Your task to perform on an android device: make emails show in primary in the gmail app Image 0: 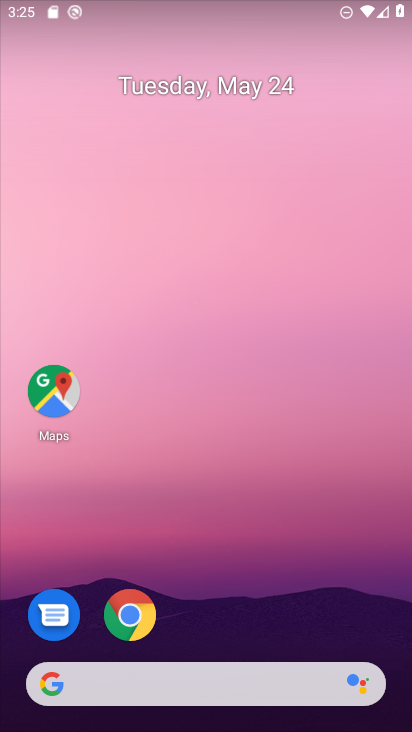
Step 0: drag from (272, 459) to (302, 104)
Your task to perform on an android device: make emails show in primary in the gmail app Image 1: 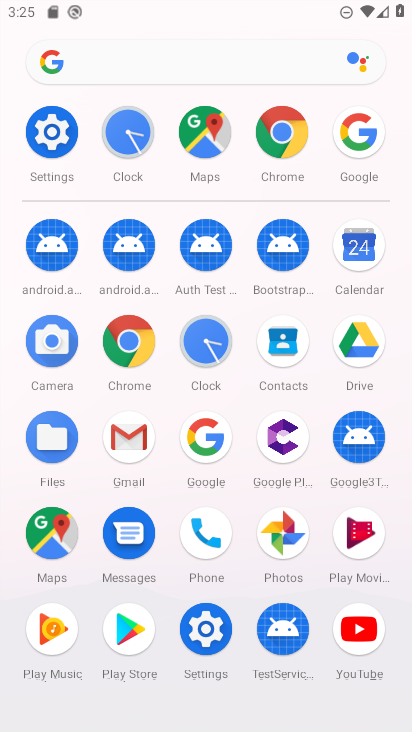
Step 1: click (141, 459)
Your task to perform on an android device: make emails show in primary in the gmail app Image 2: 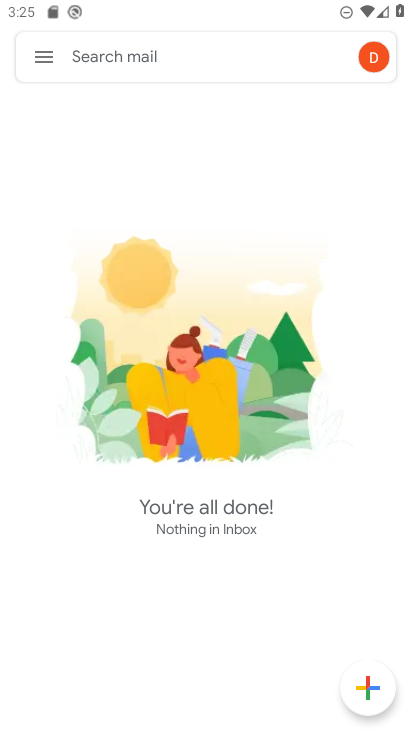
Step 2: click (45, 64)
Your task to perform on an android device: make emails show in primary in the gmail app Image 3: 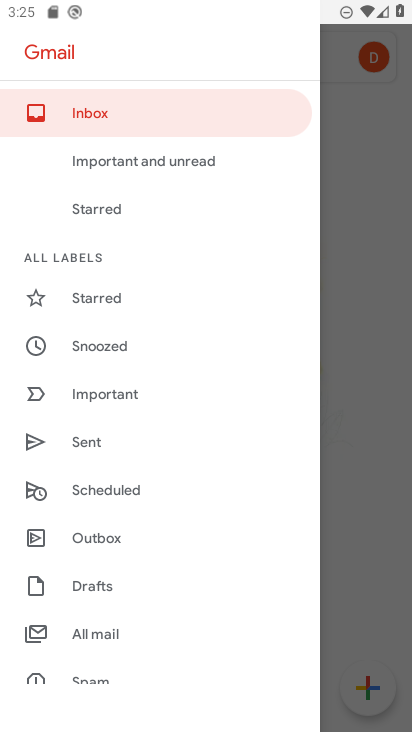
Step 3: drag from (105, 557) to (114, 365)
Your task to perform on an android device: make emails show in primary in the gmail app Image 4: 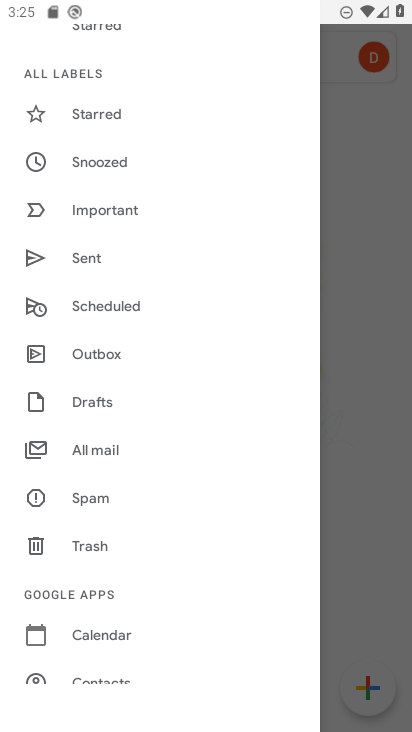
Step 4: drag from (178, 623) to (238, 370)
Your task to perform on an android device: make emails show in primary in the gmail app Image 5: 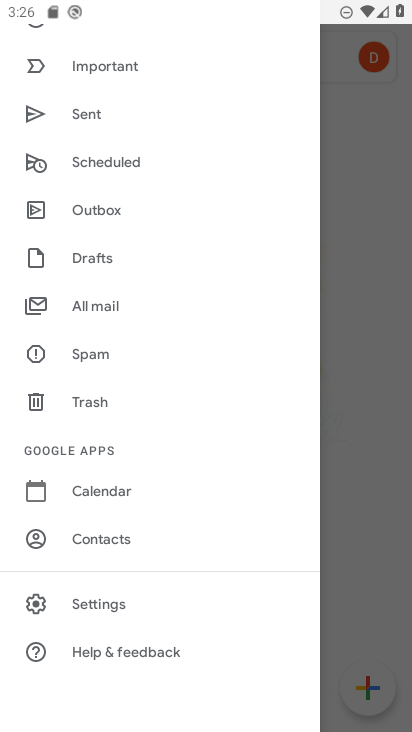
Step 5: click (149, 605)
Your task to perform on an android device: make emails show in primary in the gmail app Image 6: 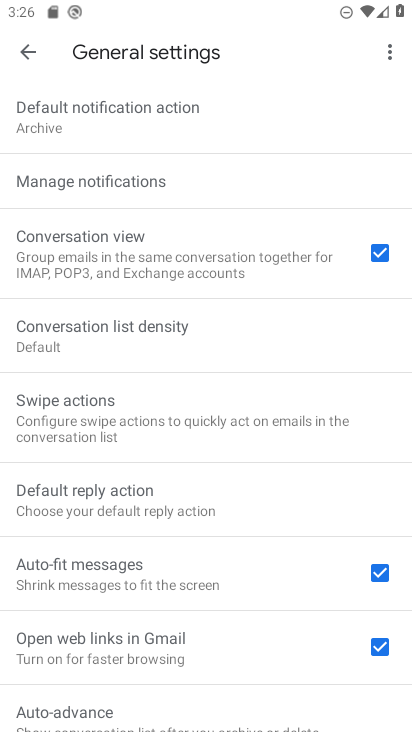
Step 6: task complete